Your task to perform on an android device: all mails in gmail Image 0: 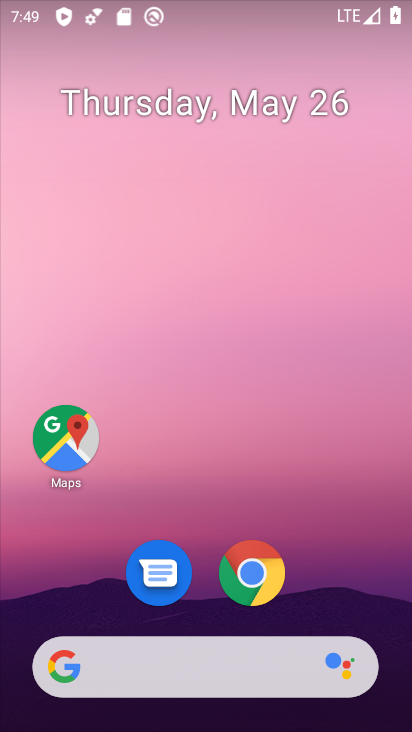
Step 0: drag from (313, 475) to (244, 12)
Your task to perform on an android device: all mails in gmail Image 1: 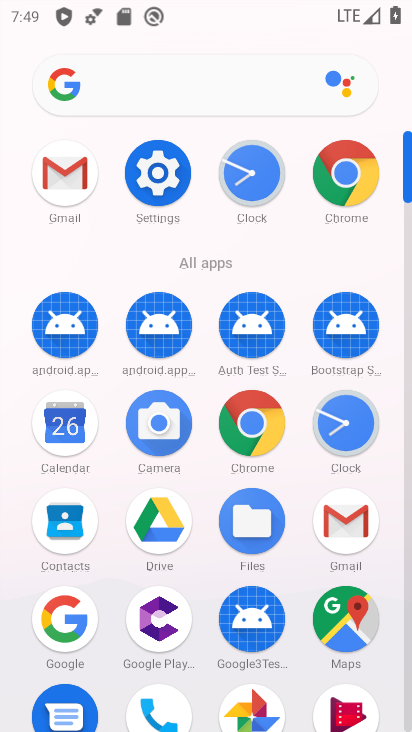
Step 1: drag from (16, 609) to (12, 340)
Your task to perform on an android device: all mails in gmail Image 2: 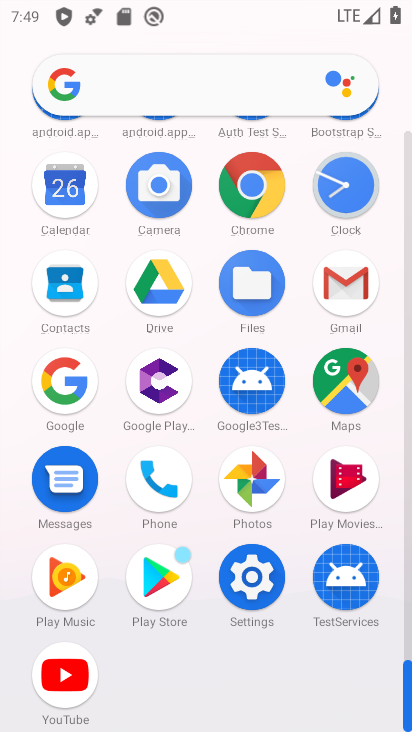
Step 2: click (342, 275)
Your task to perform on an android device: all mails in gmail Image 3: 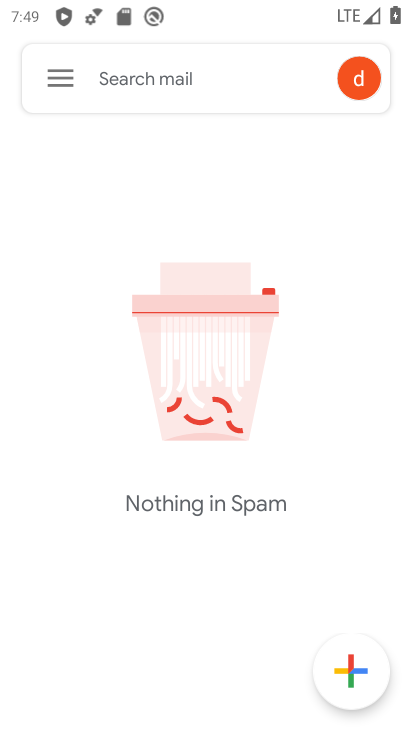
Step 3: click (61, 47)
Your task to perform on an android device: all mails in gmail Image 4: 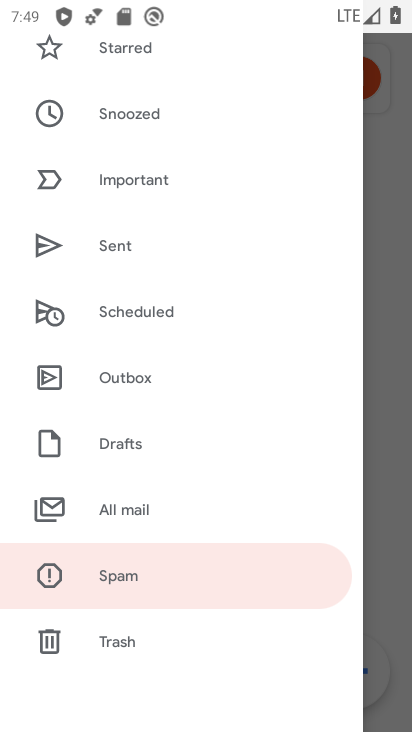
Step 4: click (89, 502)
Your task to perform on an android device: all mails in gmail Image 5: 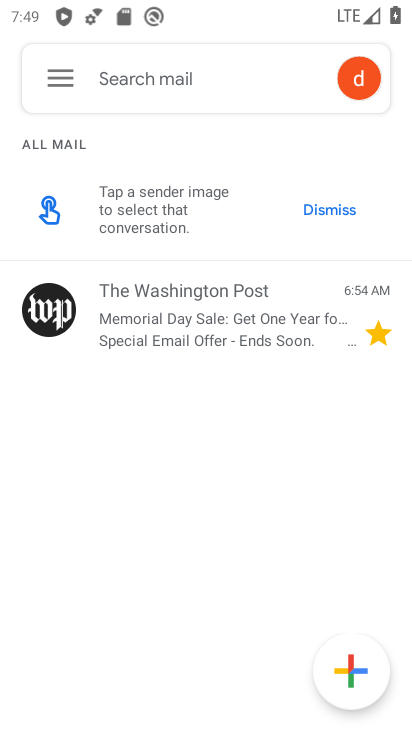
Step 5: click (54, 81)
Your task to perform on an android device: all mails in gmail Image 6: 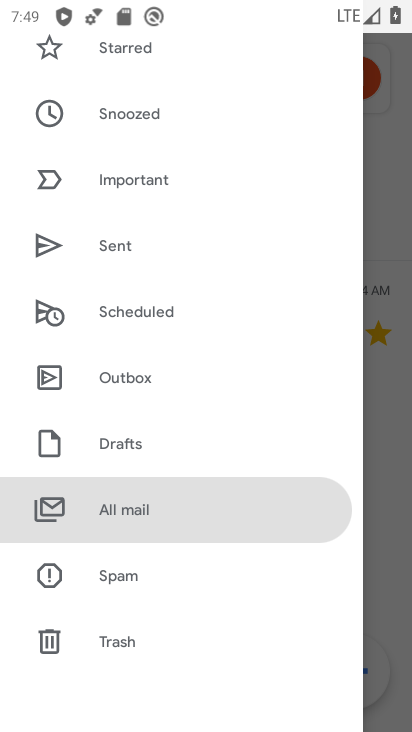
Step 6: click (154, 505)
Your task to perform on an android device: all mails in gmail Image 7: 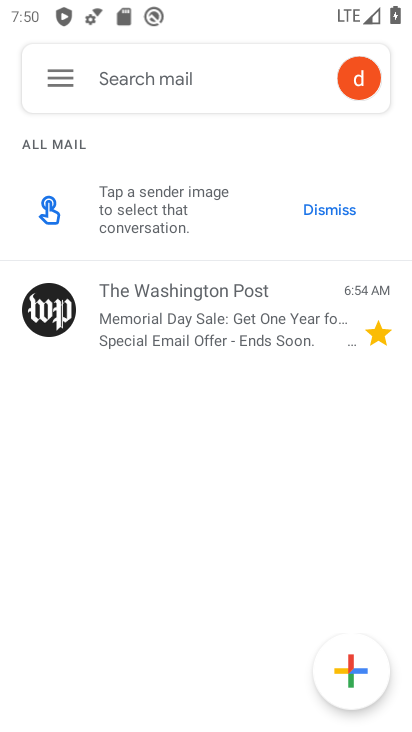
Step 7: task complete